Your task to perform on an android device: Is it going to rain tomorrow? Image 0: 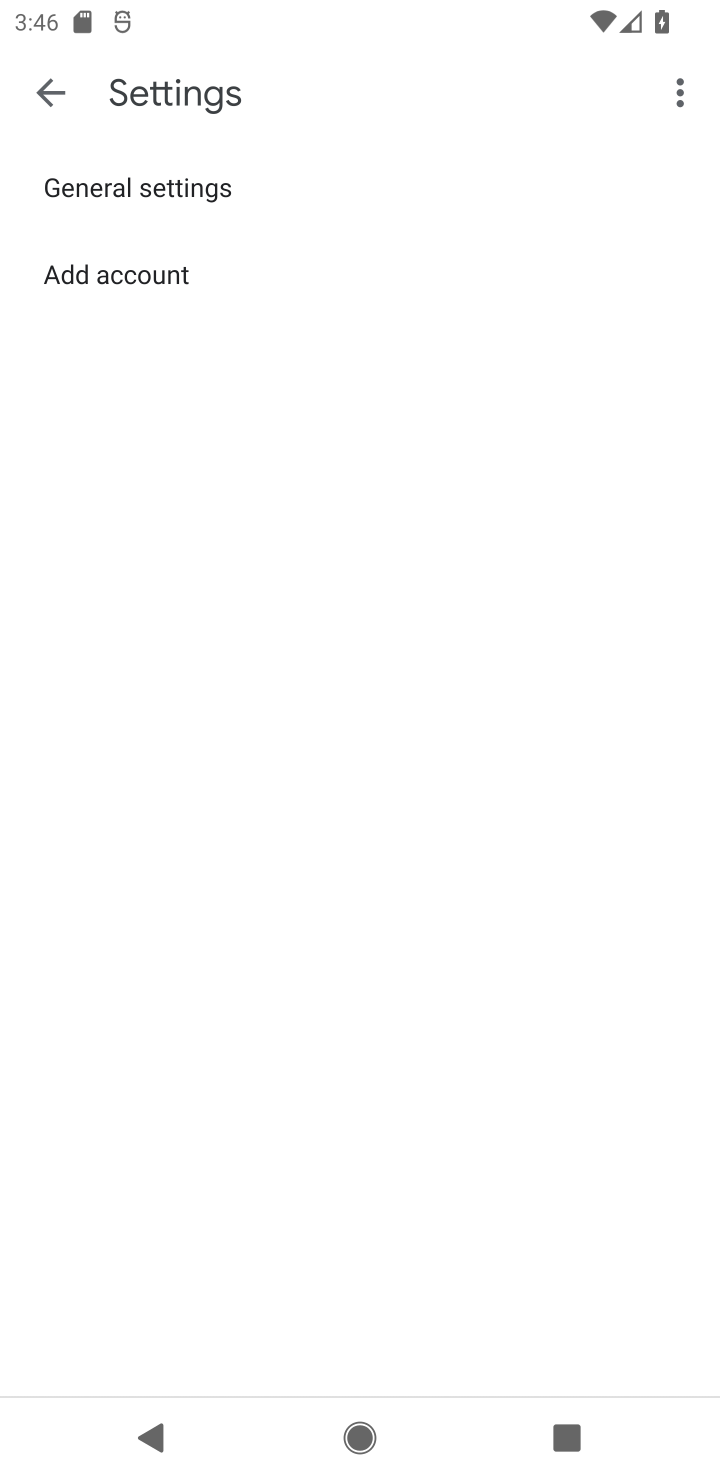
Step 0: press home button
Your task to perform on an android device: Is it going to rain tomorrow? Image 1: 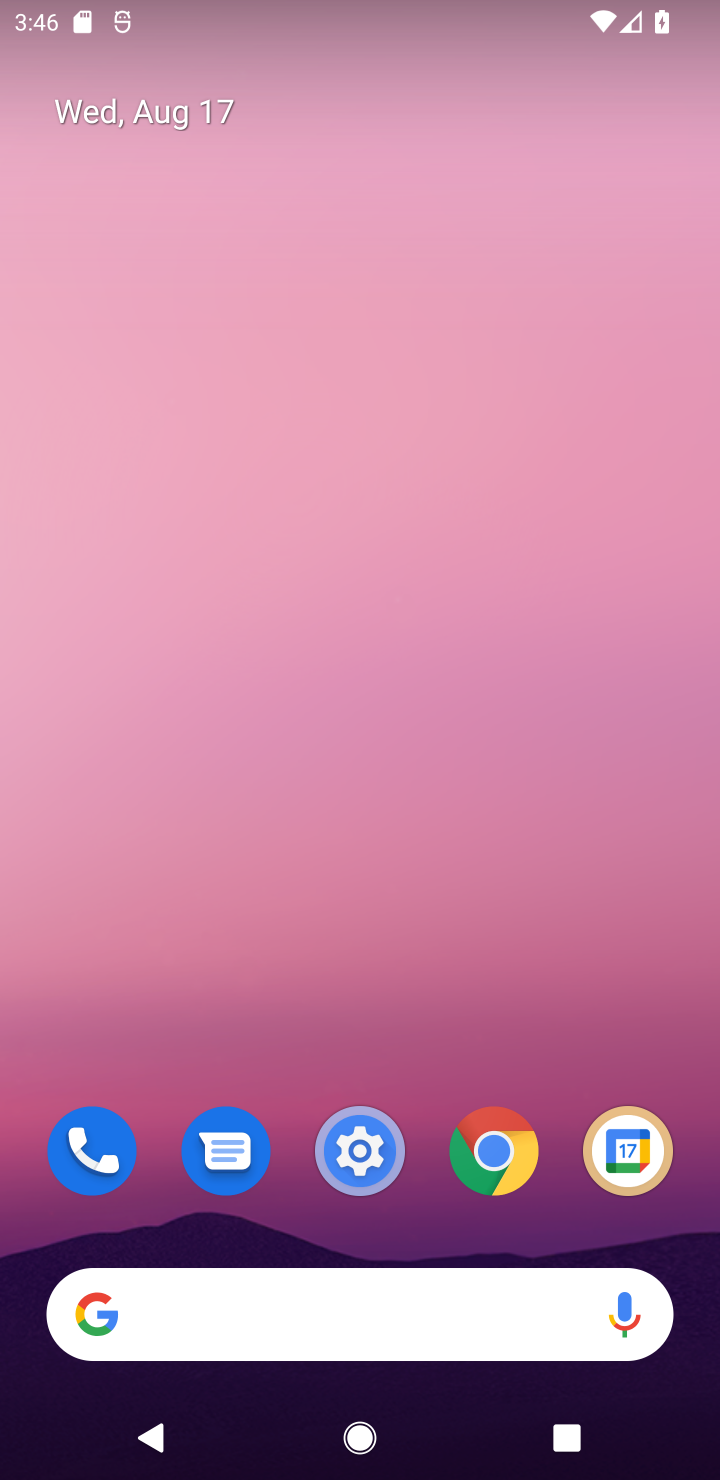
Step 1: drag from (288, 1258) to (348, 270)
Your task to perform on an android device: Is it going to rain tomorrow? Image 2: 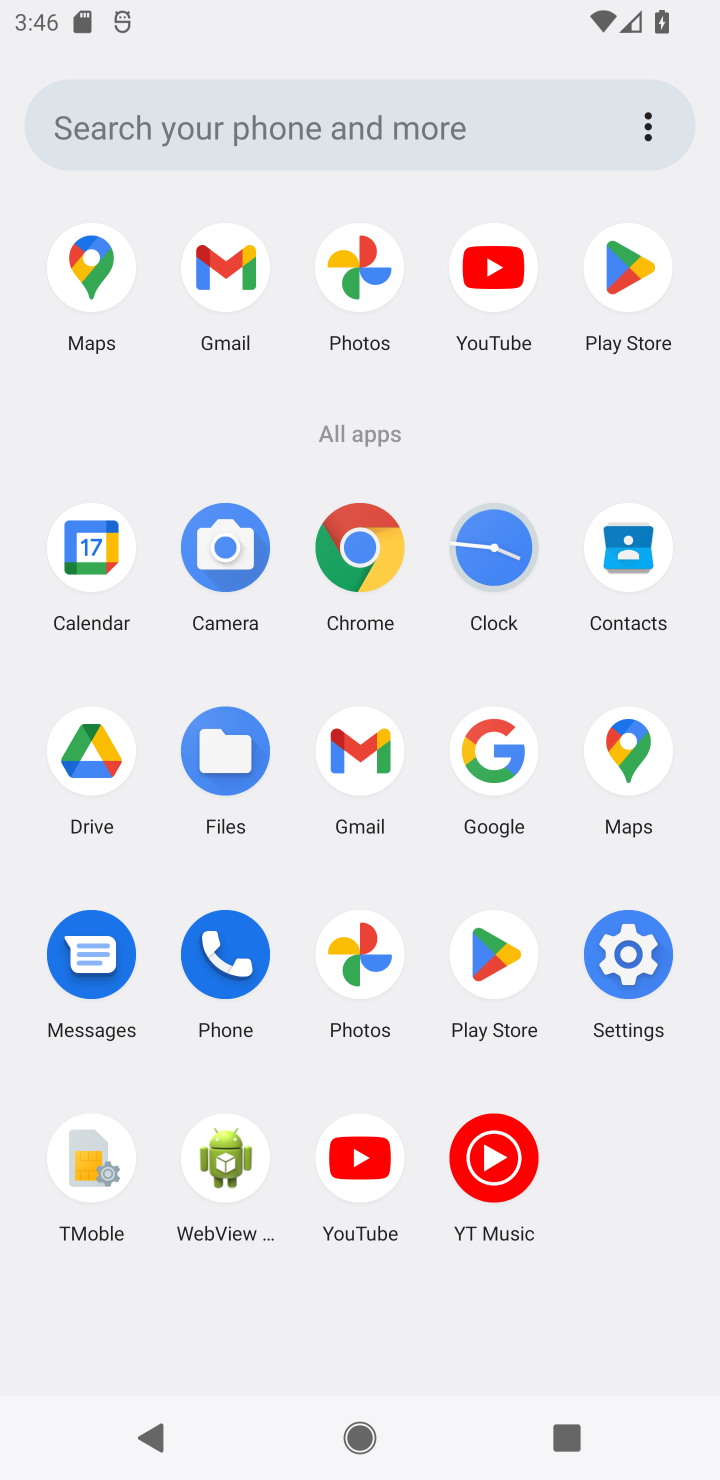
Step 2: click (264, 132)
Your task to perform on an android device: Is it going to rain tomorrow? Image 3: 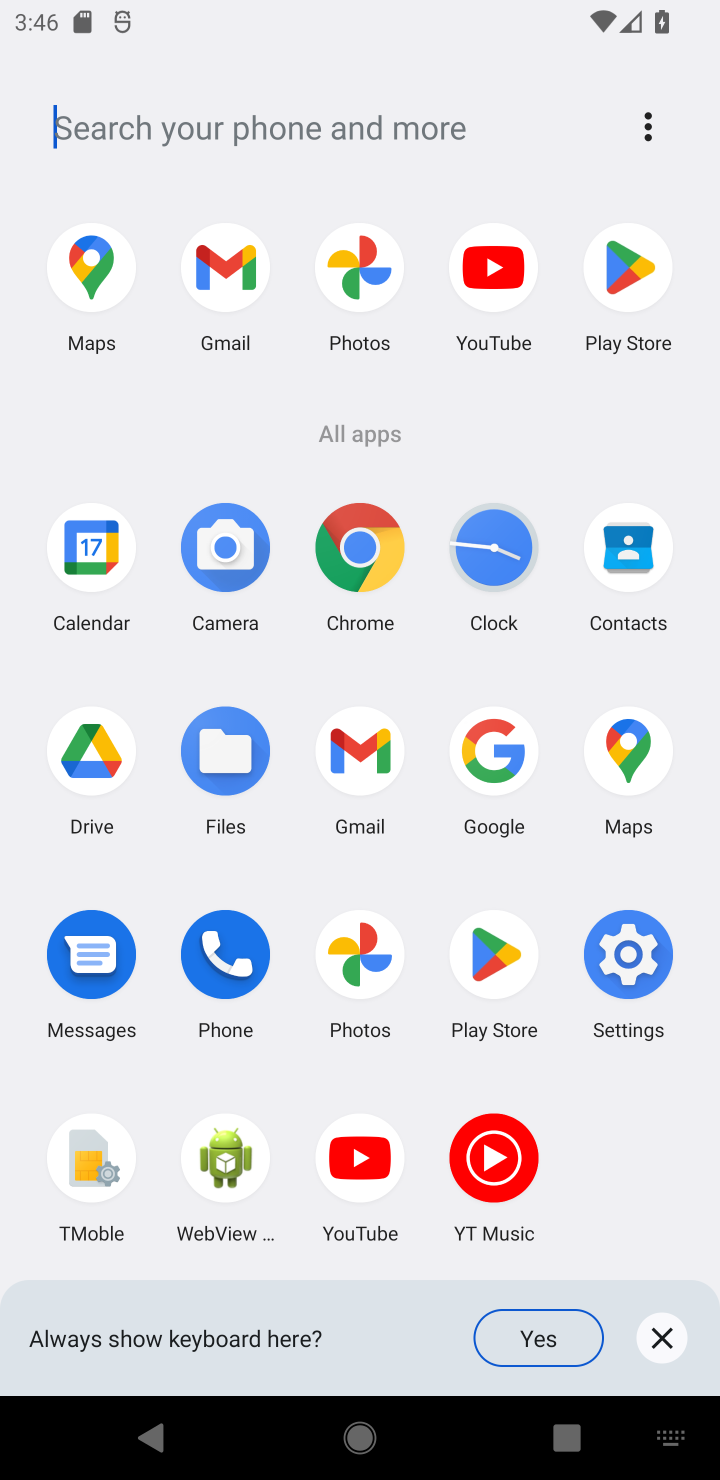
Step 3: type "rain"
Your task to perform on an android device: Is it going to rain tomorrow? Image 4: 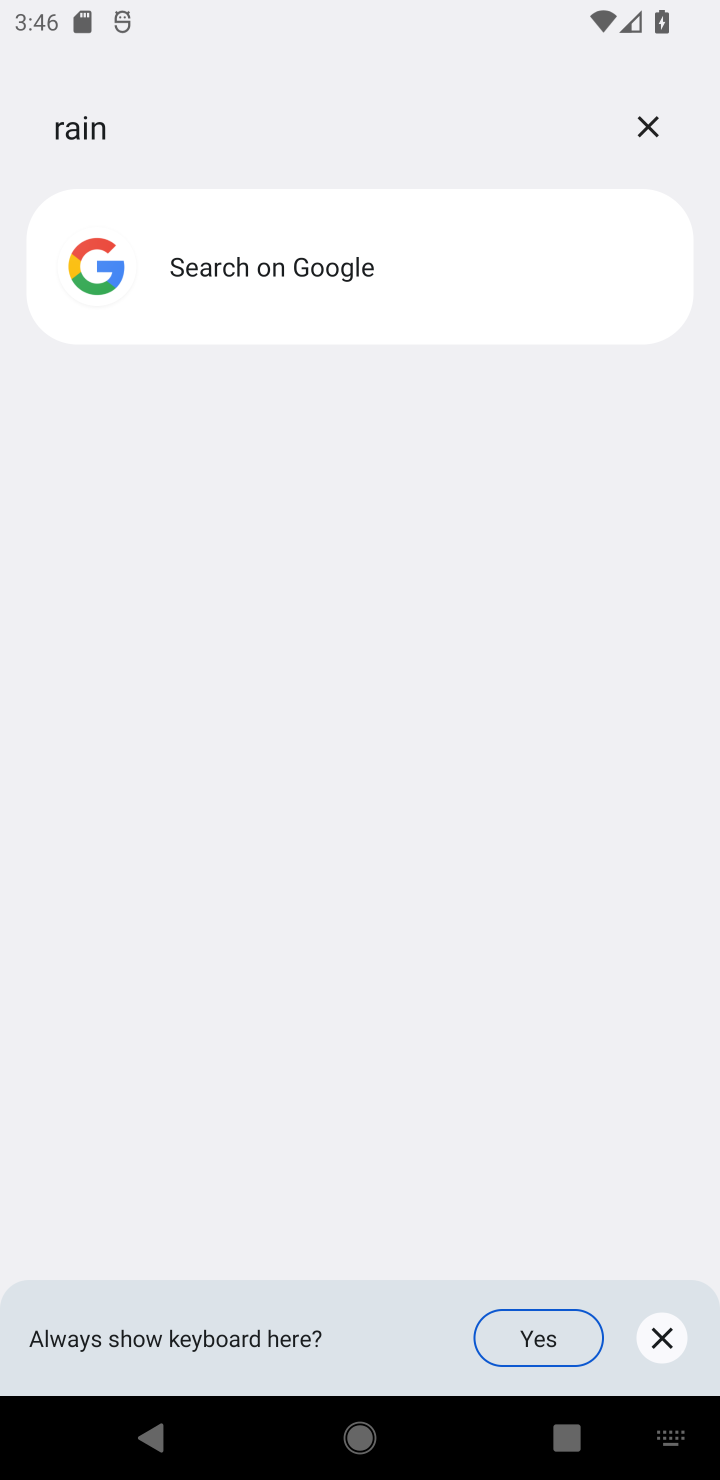
Step 4: click (372, 313)
Your task to perform on an android device: Is it going to rain tomorrow? Image 5: 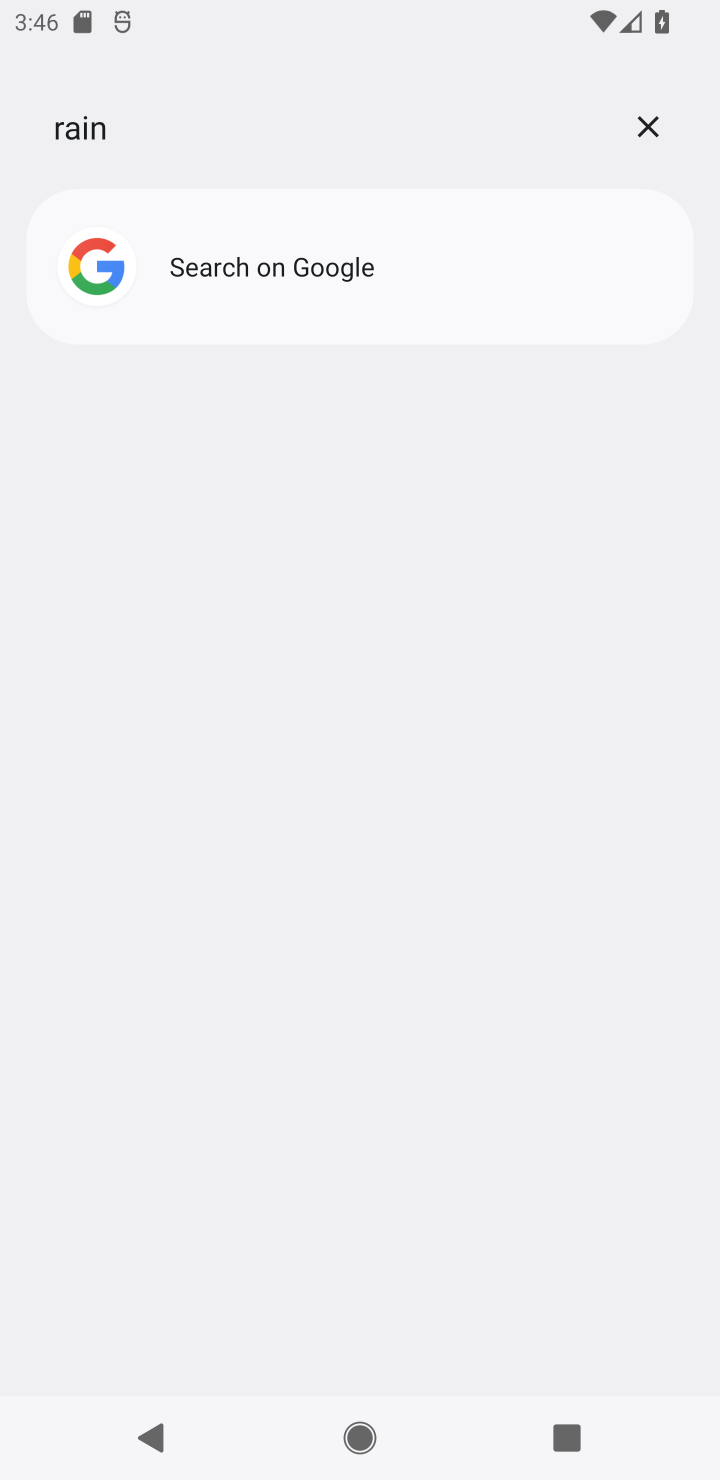
Step 5: click (234, 275)
Your task to perform on an android device: Is it going to rain tomorrow? Image 6: 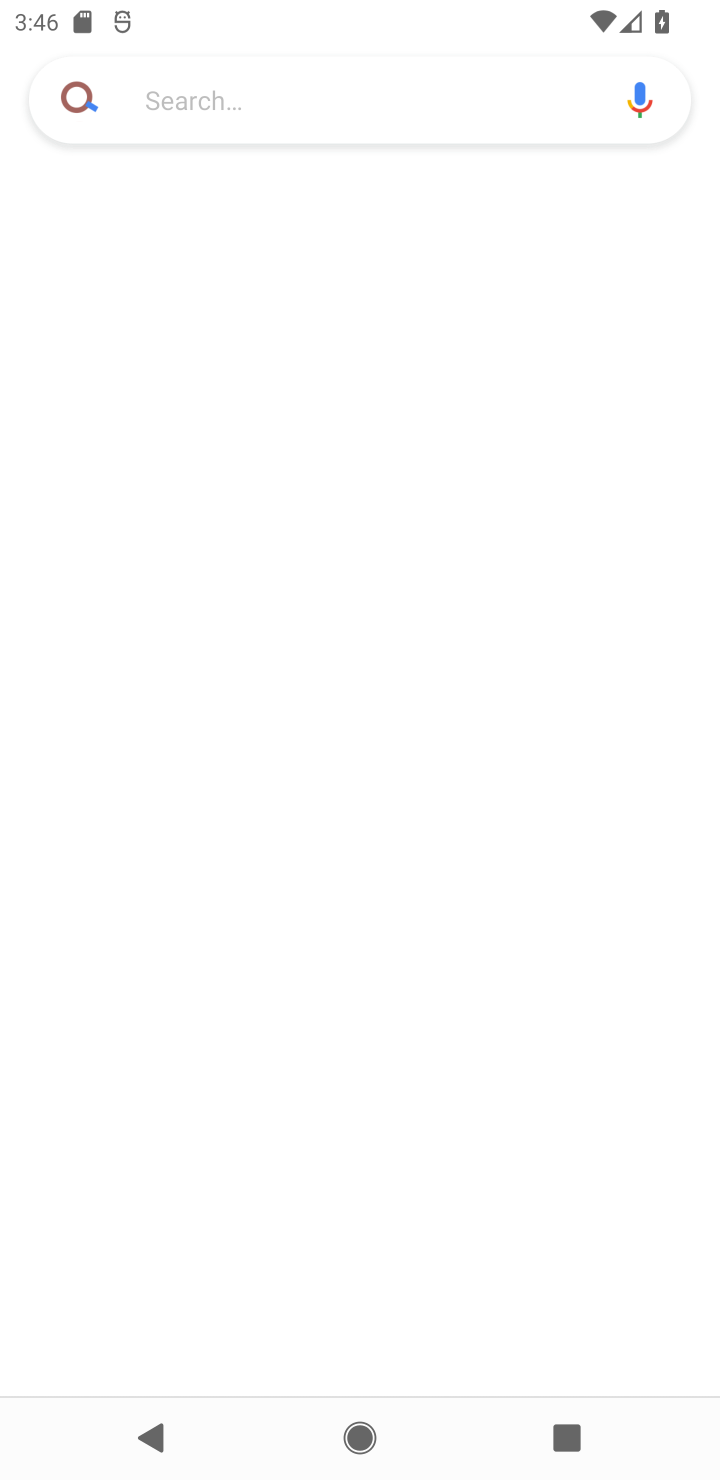
Step 6: task complete